Your task to perform on an android device: show emergency info Image 0: 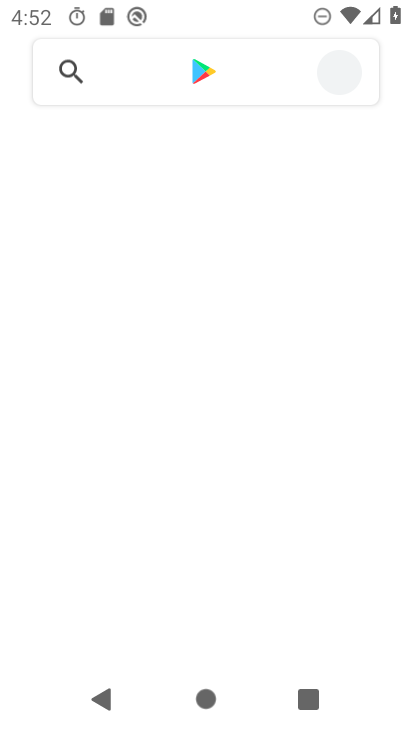
Step 0: press back button
Your task to perform on an android device: show emergency info Image 1: 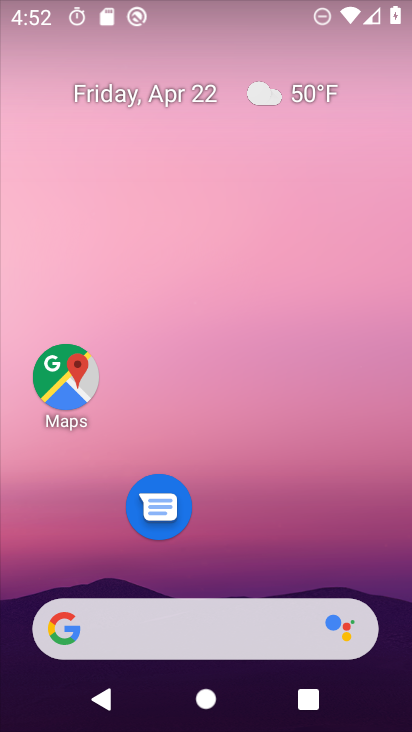
Step 1: drag from (313, 509) to (315, 167)
Your task to perform on an android device: show emergency info Image 2: 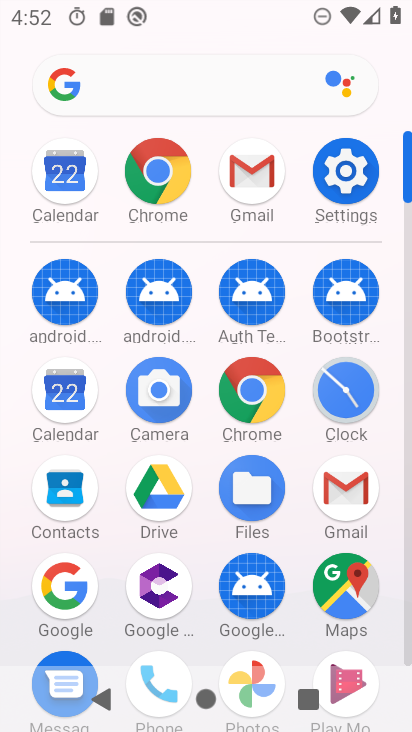
Step 2: click (366, 181)
Your task to perform on an android device: show emergency info Image 3: 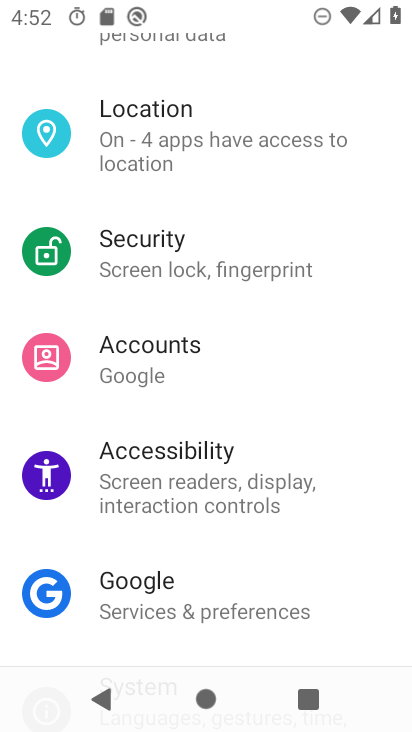
Step 3: drag from (194, 597) to (255, 104)
Your task to perform on an android device: show emergency info Image 4: 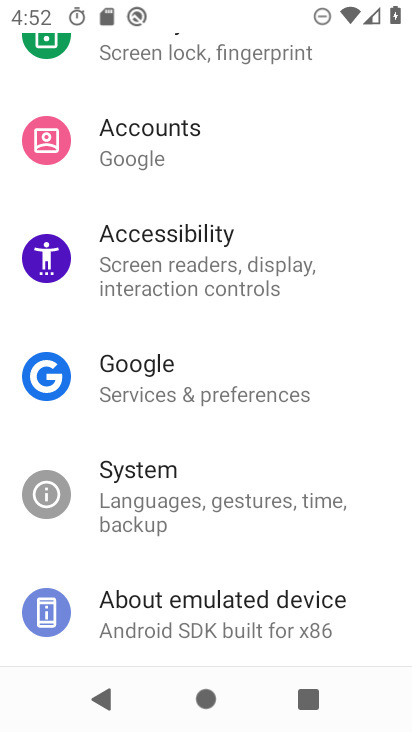
Step 4: drag from (187, 573) to (278, 118)
Your task to perform on an android device: show emergency info Image 5: 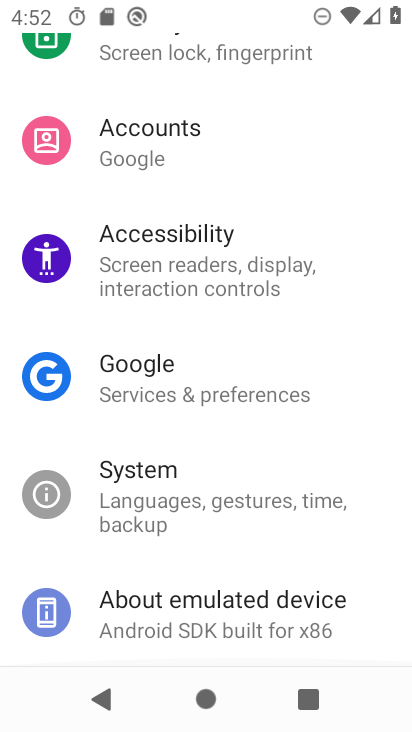
Step 5: drag from (252, 607) to (296, 117)
Your task to perform on an android device: show emergency info Image 6: 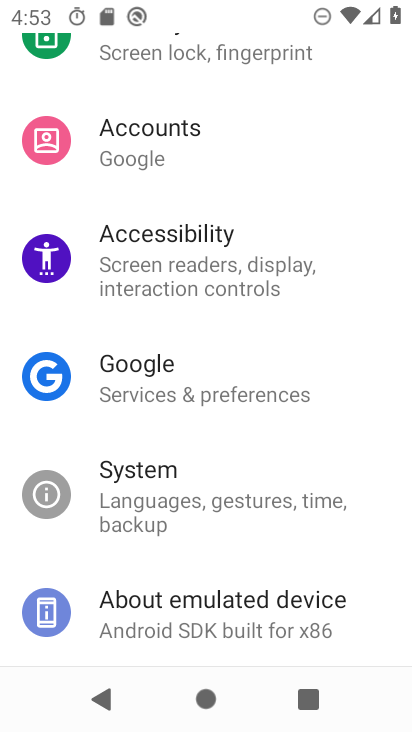
Step 6: click (235, 620)
Your task to perform on an android device: show emergency info Image 7: 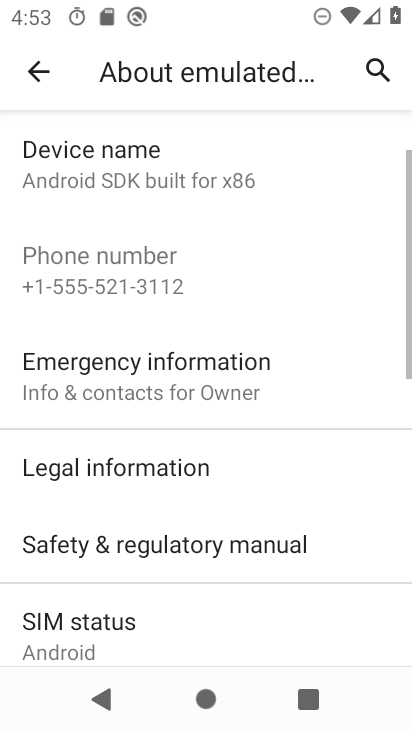
Step 7: click (142, 371)
Your task to perform on an android device: show emergency info Image 8: 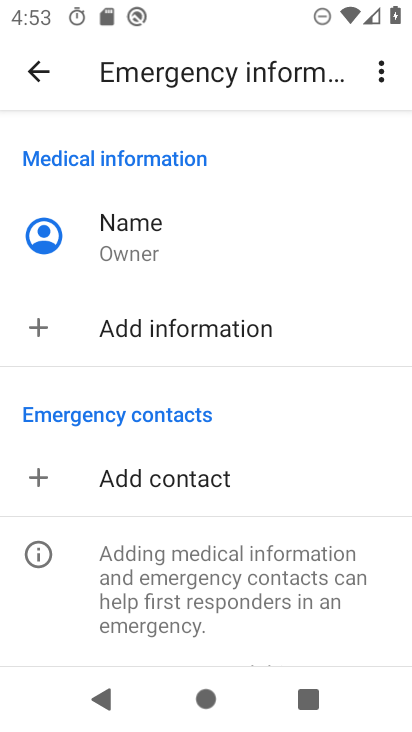
Step 8: task complete